Your task to perform on an android device: find snoozed emails in the gmail app Image 0: 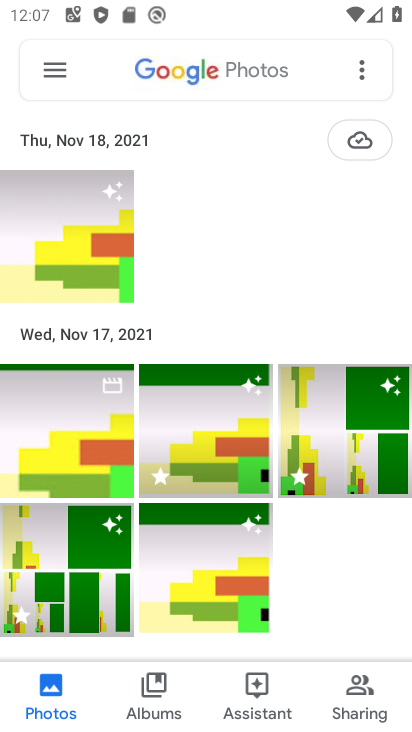
Step 0: press home button
Your task to perform on an android device: find snoozed emails in the gmail app Image 1: 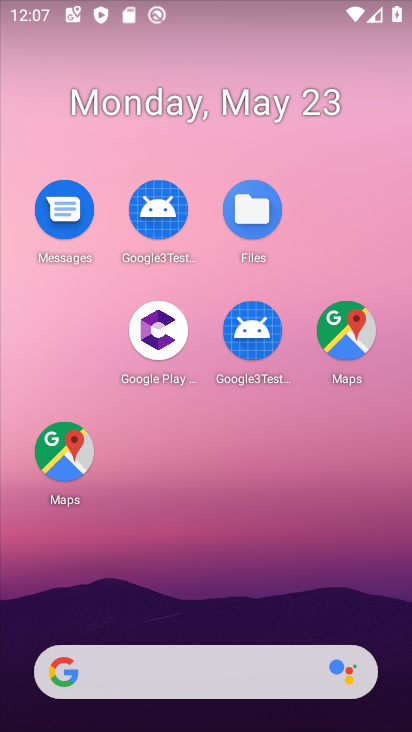
Step 1: drag from (210, 618) to (311, 4)
Your task to perform on an android device: find snoozed emails in the gmail app Image 2: 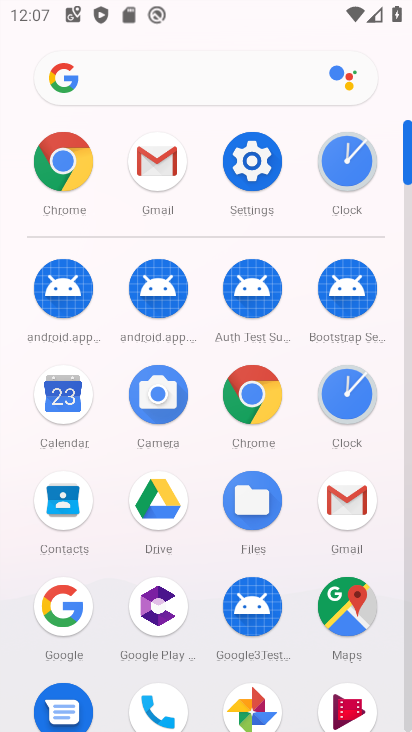
Step 2: click (340, 512)
Your task to perform on an android device: find snoozed emails in the gmail app Image 3: 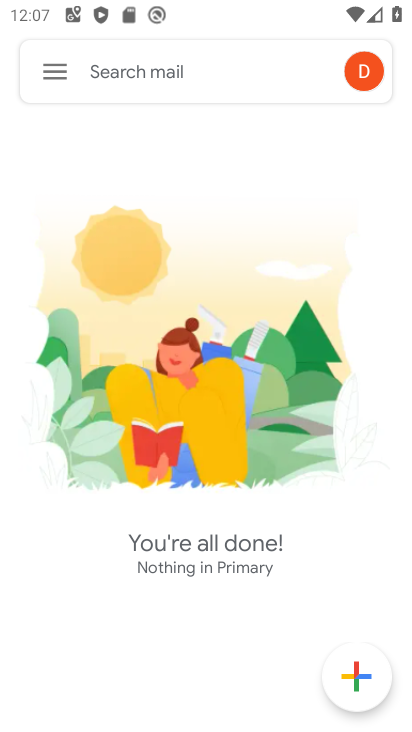
Step 3: click (46, 56)
Your task to perform on an android device: find snoozed emails in the gmail app Image 4: 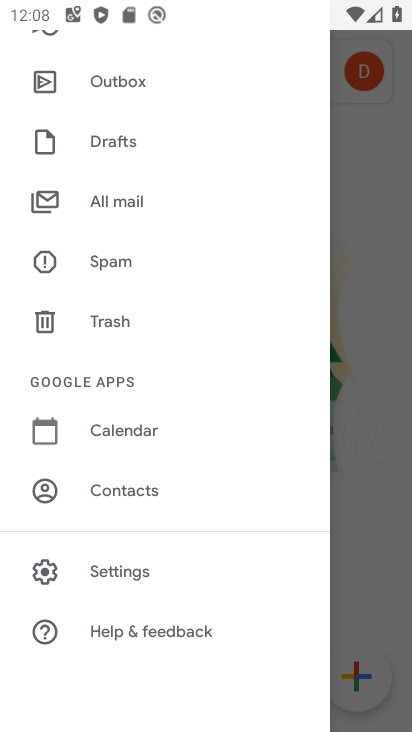
Step 4: drag from (109, 141) to (78, 474)
Your task to perform on an android device: find snoozed emails in the gmail app Image 5: 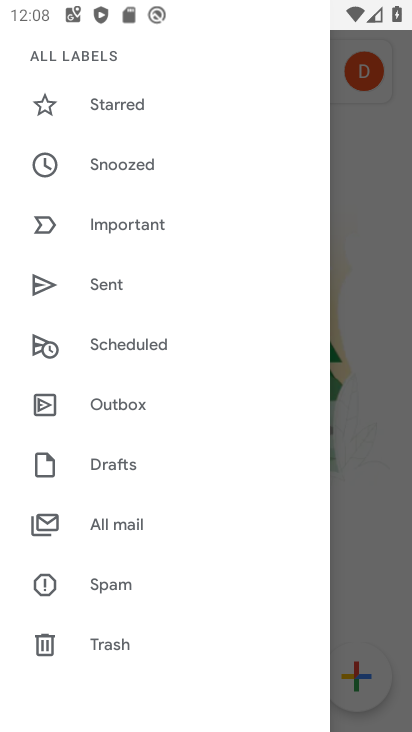
Step 5: click (135, 156)
Your task to perform on an android device: find snoozed emails in the gmail app Image 6: 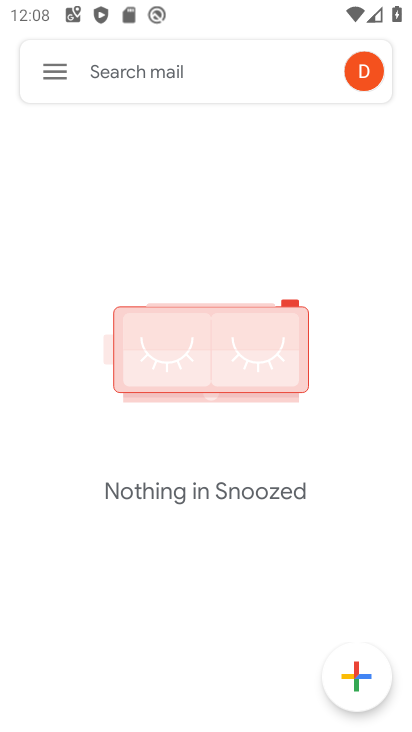
Step 6: task complete